Your task to perform on an android device: Open notification settings Image 0: 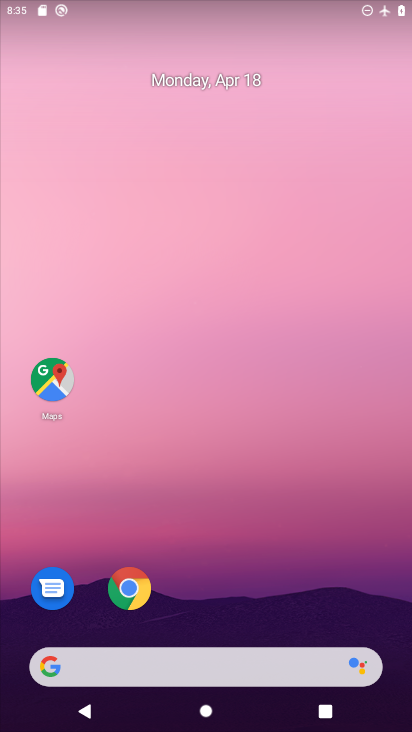
Step 0: drag from (206, 513) to (253, 59)
Your task to perform on an android device: Open notification settings Image 1: 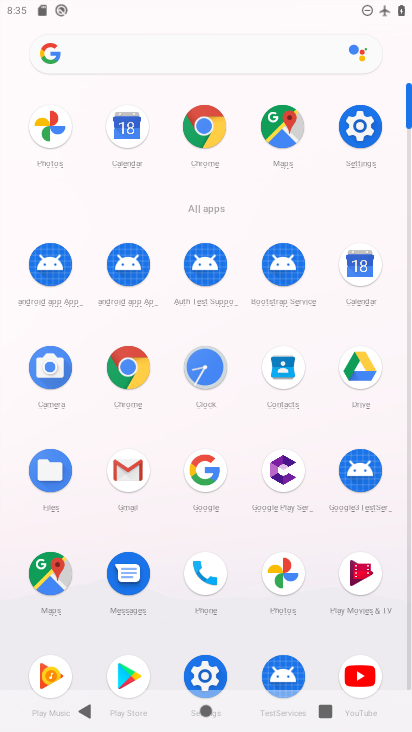
Step 1: click (365, 127)
Your task to perform on an android device: Open notification settings Image 2: 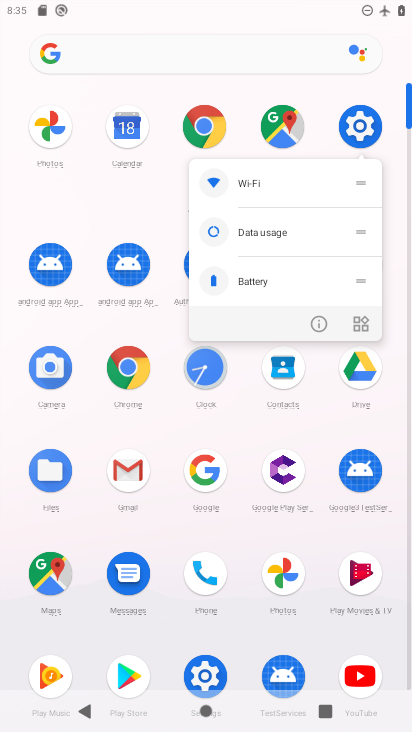
Step 2: click (368, 122)
Your task to perform on an android device: Open notification settings Image 3: 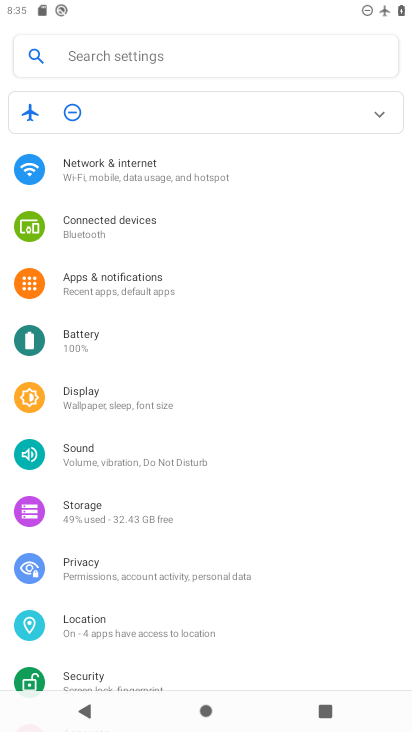
Step 3: click (149, 284)
Your task to perform on an android device: Open notification settings Image 4: 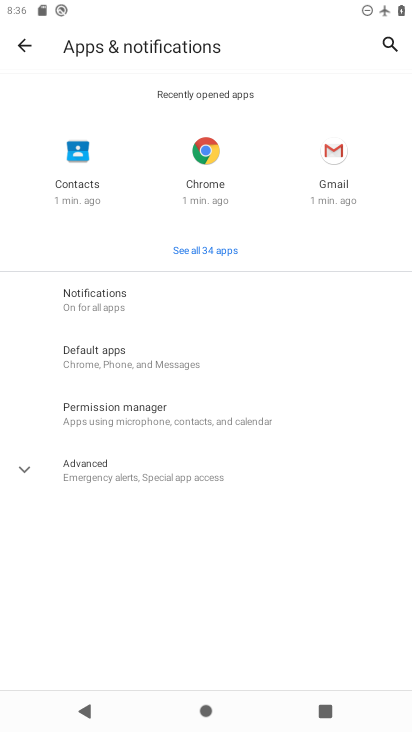
Step 4: click (109, 299)
Your task to perform on an android device: Open notification settings Image 5: 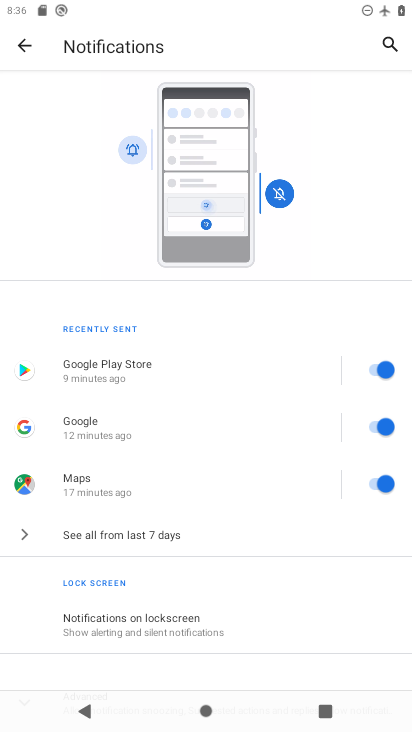
Step 5: drag from (182, 597) to (203, 163)
Your task to perform on an android device: Open notification settings Image 6: 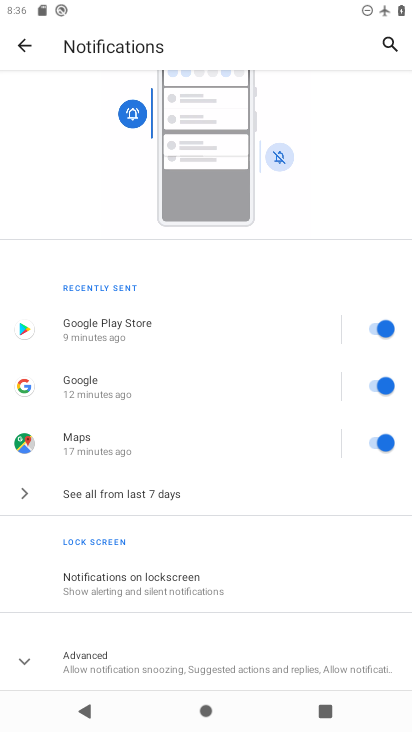
Step 6: click (128, 665)
Your task to perform on an android device: Open notification settings Image 7: 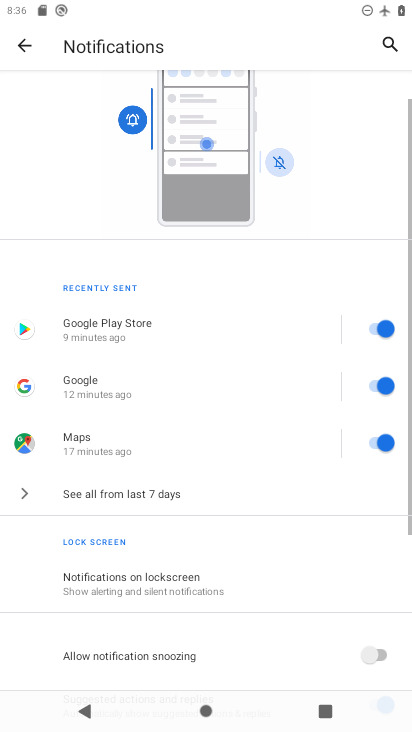
Step 7: task complete